Your task to perform on an android device: Open battery settings Image 0: 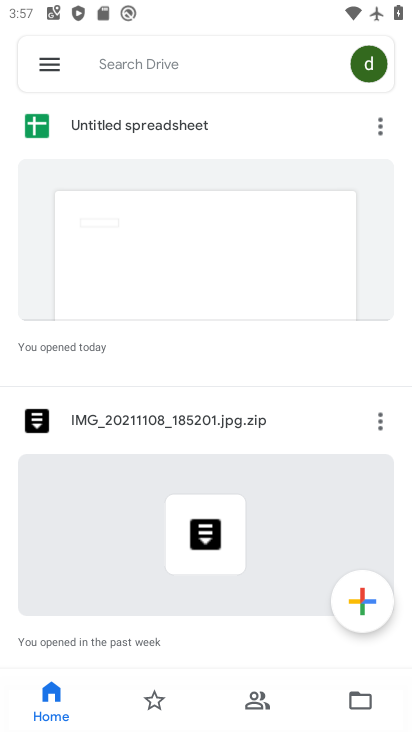
Step 0: press home button
Your task to perform on an android device: Open battery settings Image 1: 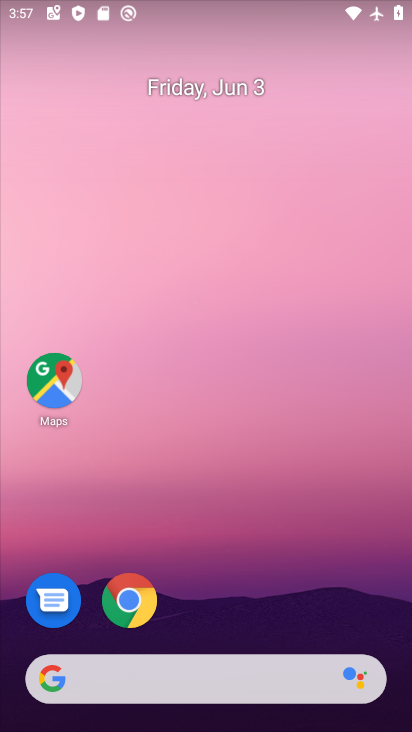
Step 1: drag from (215, 646) to (170, 2)
Your task to perform on an android device: Open battery settings Image 2: 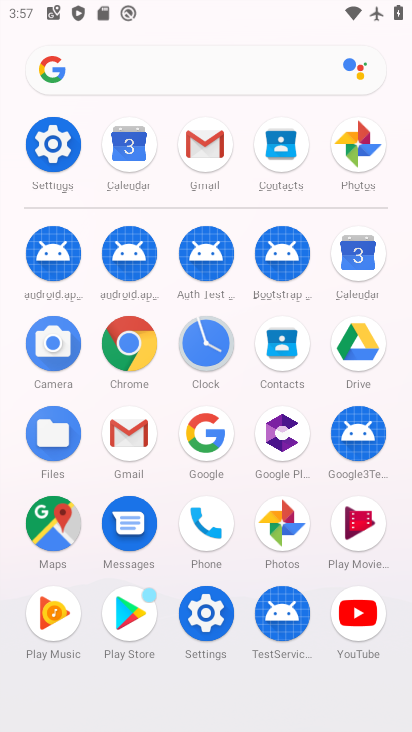
Step 2: click (48, 153)
Your task to perform on an android device: Open battery settings Image 3: 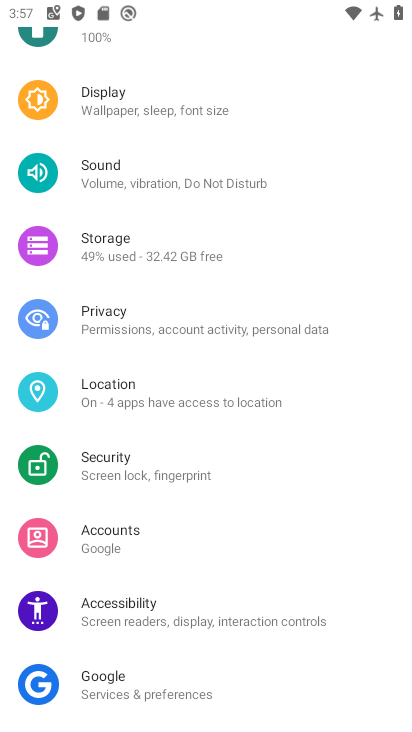
Step 3: drag from (189, 190) to (194, 505)
Your task to perform on an android device: Open battery settings Image 4: 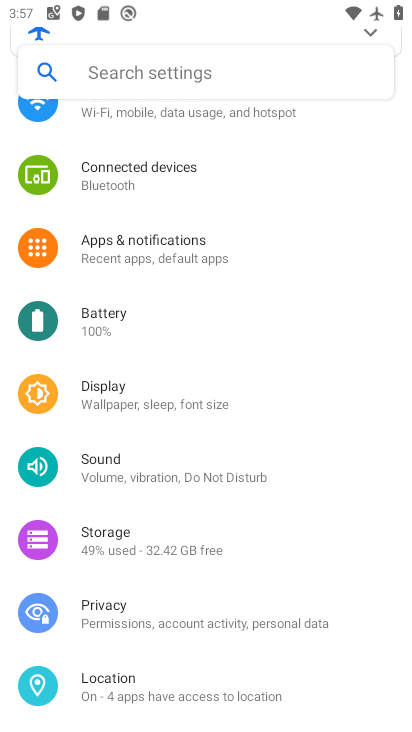
Step 4: click (119, 335)
Your task to perform on an android device: Open battery settings Image 5: 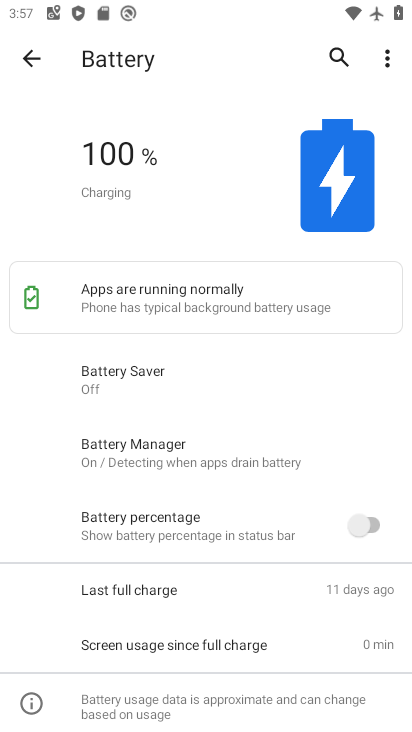
Step 5: task complete